Your task to perform on an android device: Open display settings Image 0: 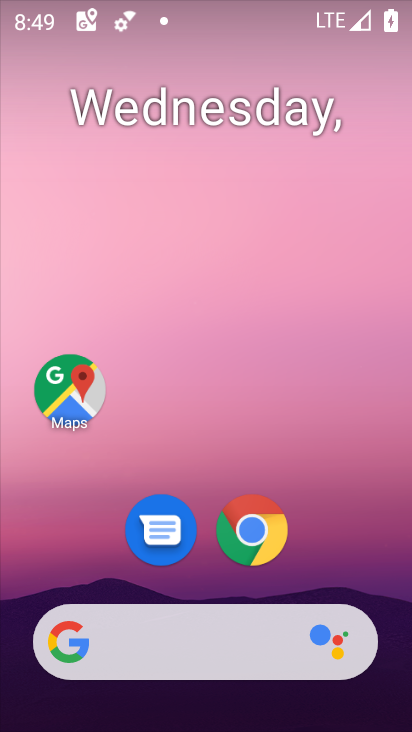
Step 0: drag from (397, 652) to (252, 58)
Your task to perform on an android device: Open display settings Image 1: 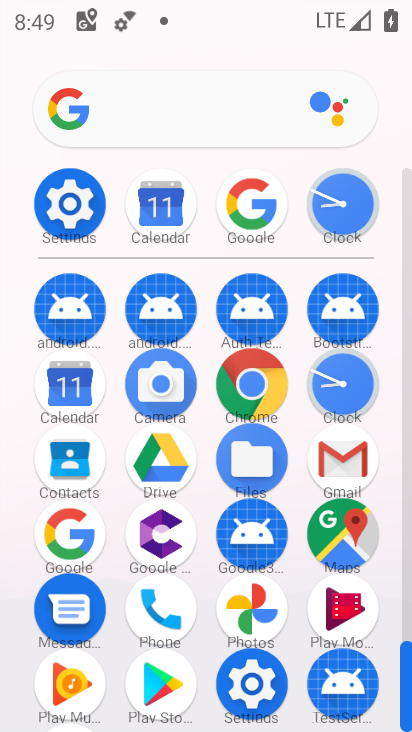
Step 1: click (77, 217)
Your task to perform on an android device: Open display settings Image 2: 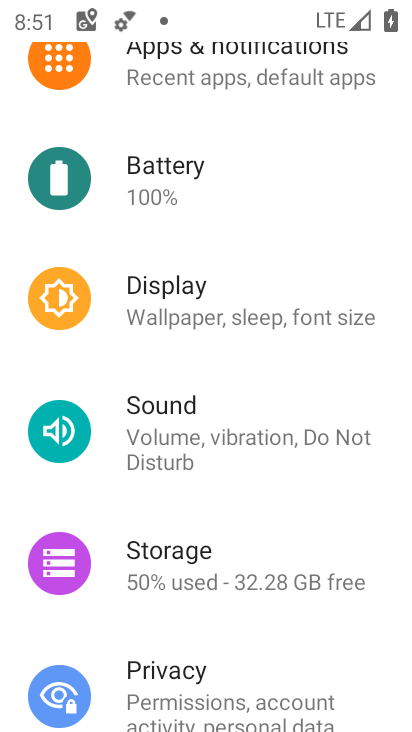
Step 2: click (109, 315)
Your task to perform on an android device: Open display settings Image 3: 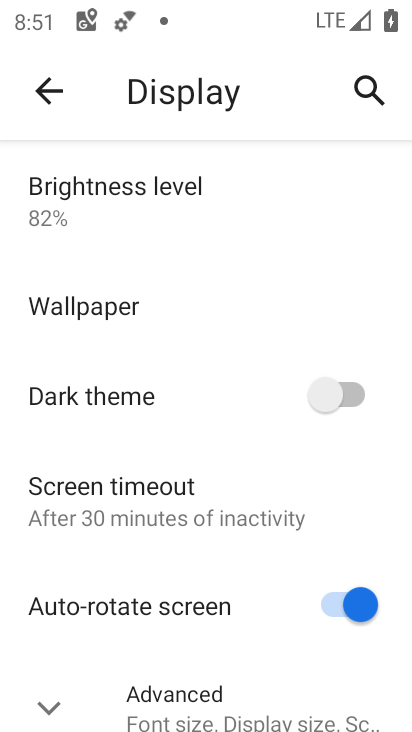
Step 3: task complete